Your task to perform on an android device: Go to sound settings Image 0: 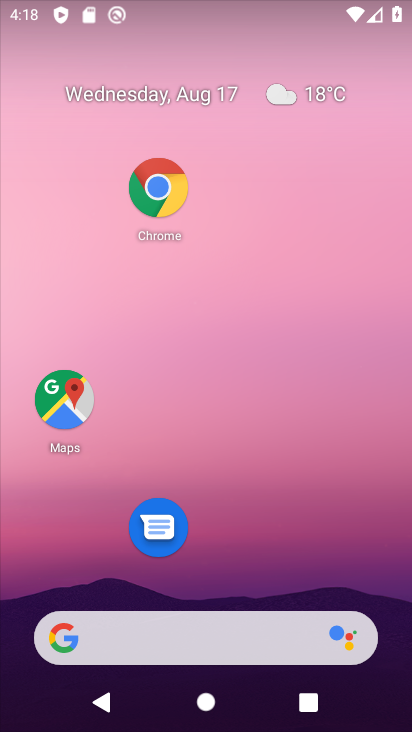
Step 0: drag from (257, 592) to (263, 222)
Your task to perform on an android device: Go to sound settings Image 1: 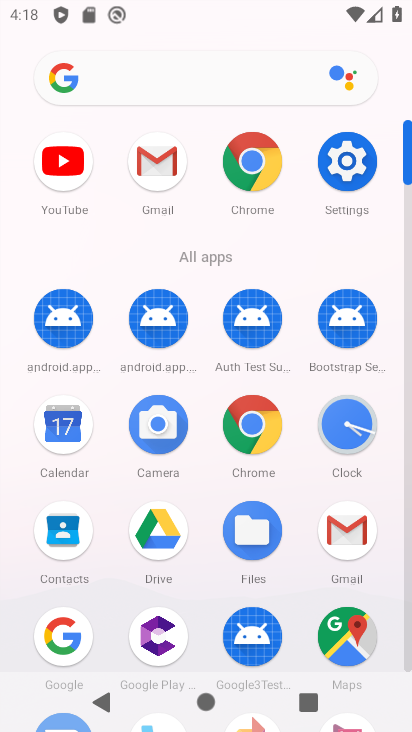
Step 1: click (338, 181)
Your task to perform on an android device: Go to sound settings Image 2: 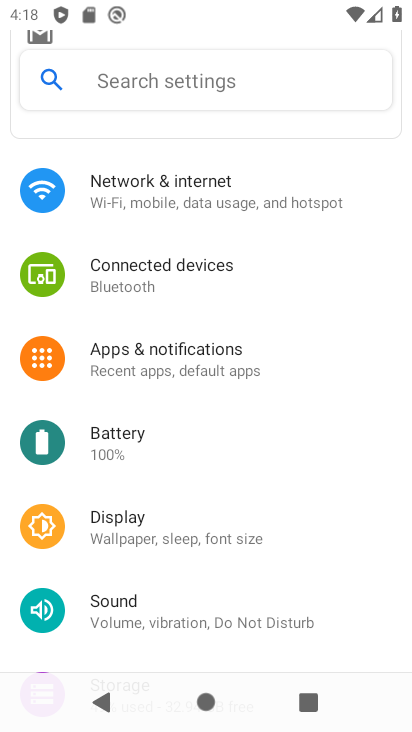
Step 2: click (92, 590)
Your task to perform on an android device: Go to sound settings Image 3: 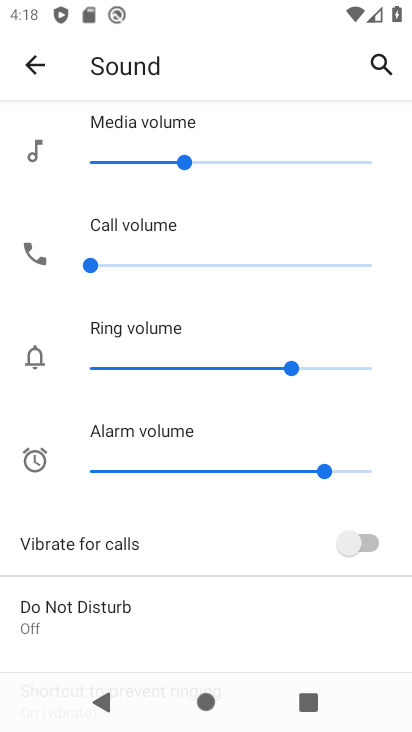
Step 3: task complete